Your task to perform on an android device: Go to CNN.com Image 0: 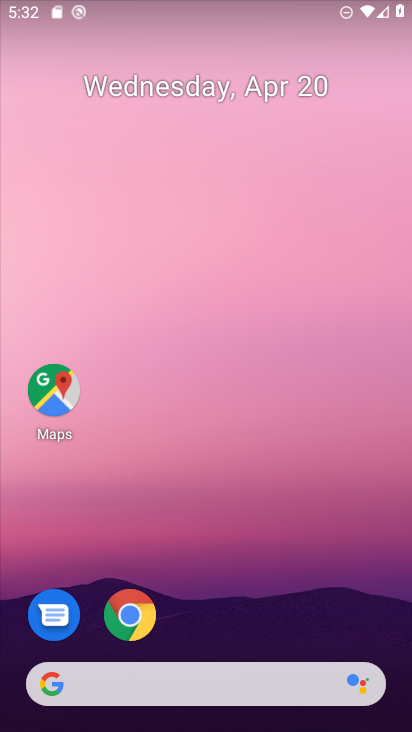
Step 0: click (134, 613)
Your task to perform on an android device: Go to CNN.com Image 1: 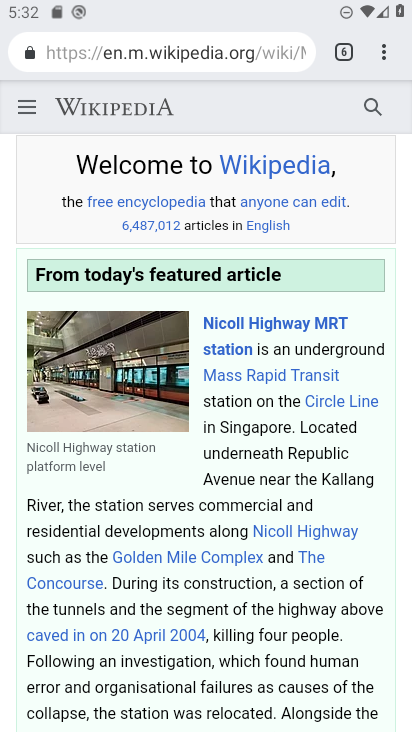
Step 1: click (350, 45)
Your task to perform on an android device: Go to CNN.com Image 2: 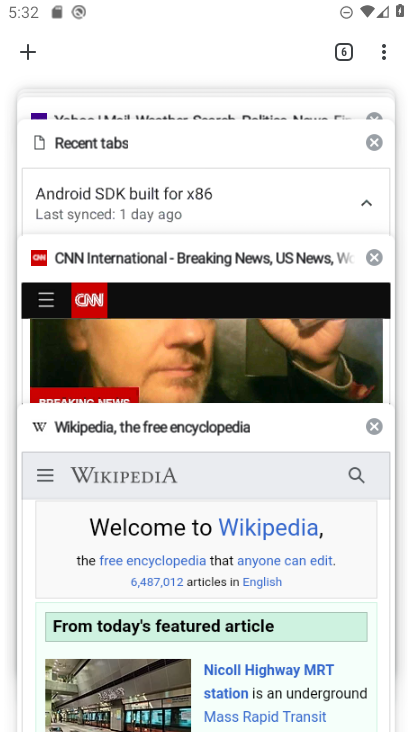
Step 2: click (143, 298)
Your task to perform on an android device: Go to CNN.com Image 3: 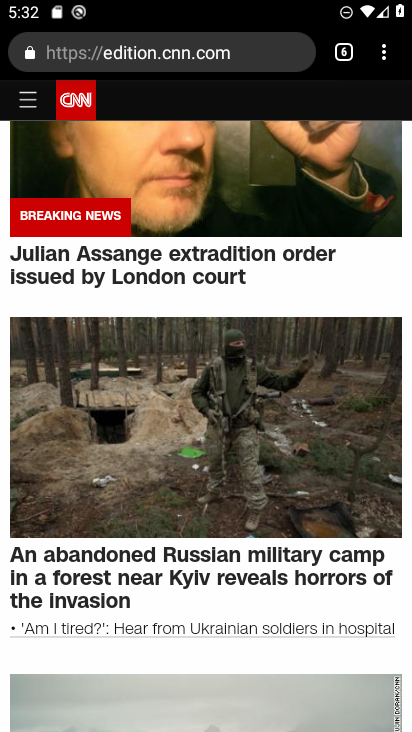
Step 3: task complete